Your task to perform on an android device: Search for a 24-inch cordless drill. Image 0: 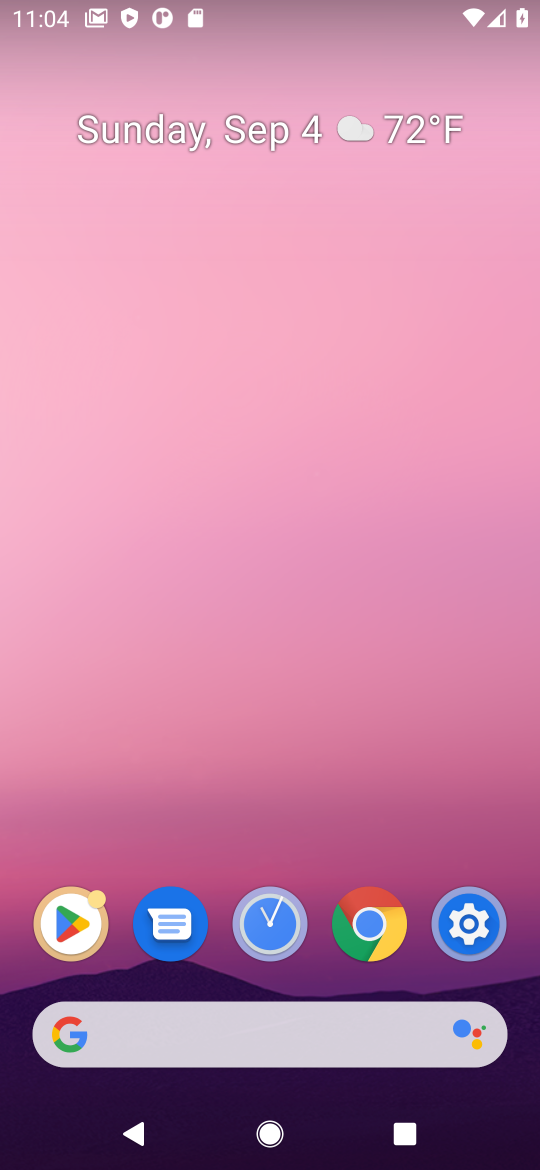
Step 0: press home button
Your task to perform on an android device: Search for a 24-inch cordless drill. Image 1: 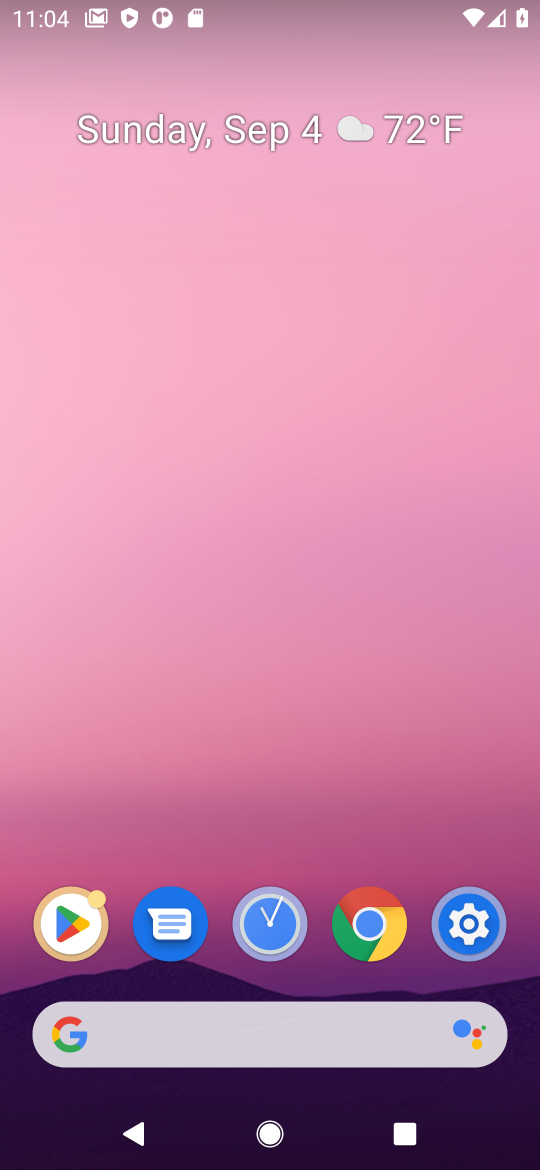
Step 1: drag from (312, 845) to (364, 4)
Your task to perform on an android device: Search for a 24-inch cordless drill. Image 2: 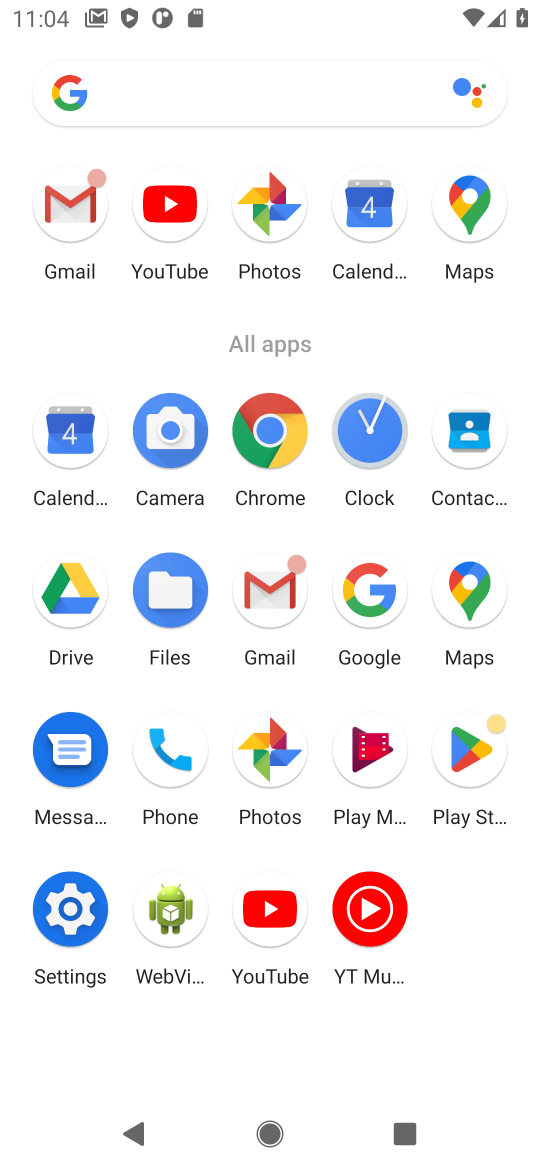
Step 2: click (267, 424)
Your task to perform on an android device: Search for a 24-inch cordless drill. Image 3: 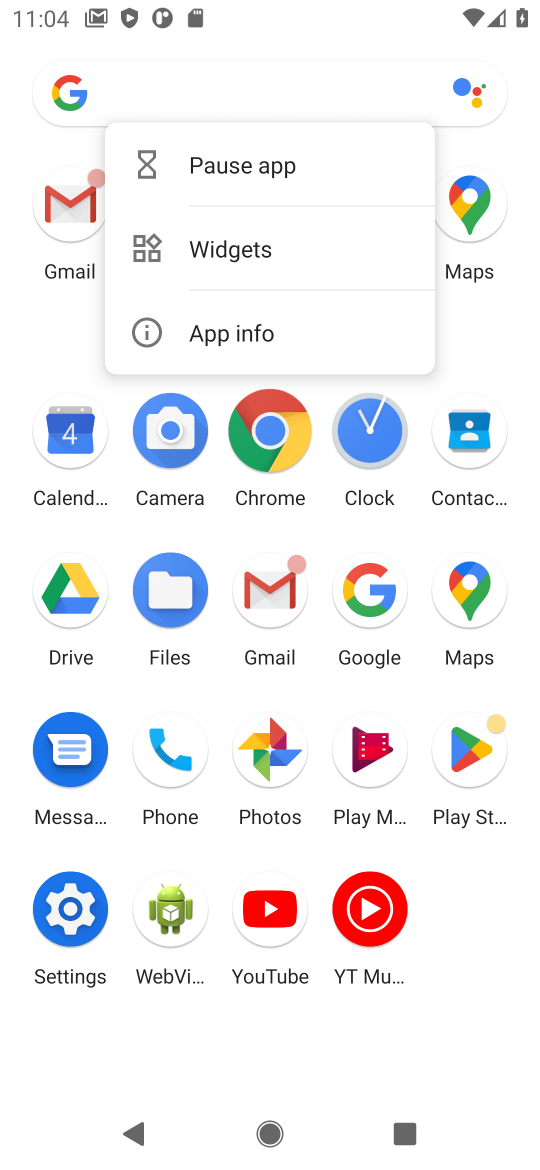
Step 3: click (267, 424)
Your task to perform on an android device: Search for a 24-inch cordless drill. Image 4: 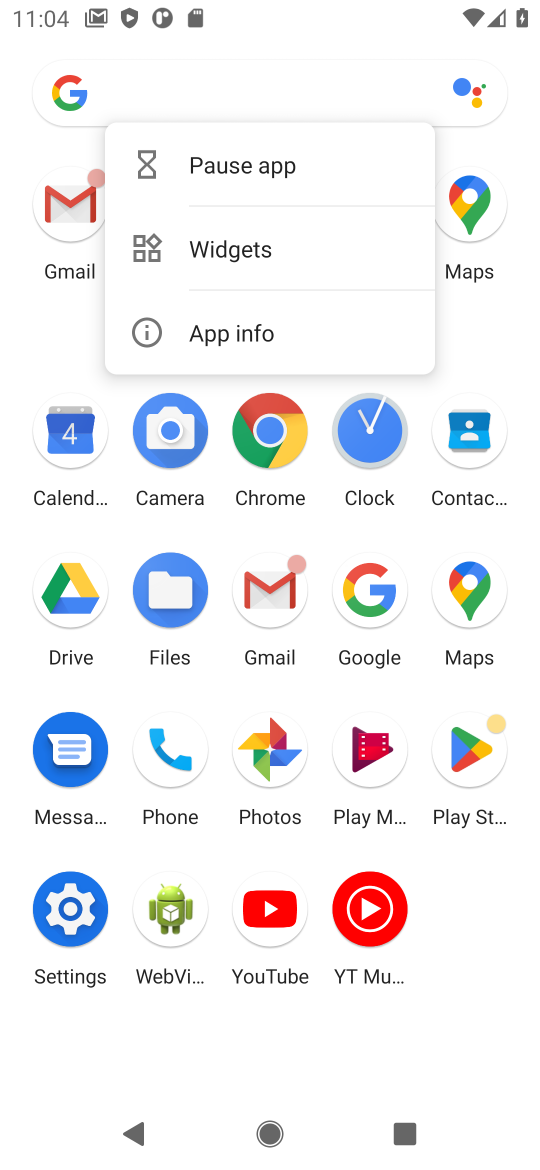
Step 4: click (267, 424)
Your task to perform on an android device: Search for a 24-inch cordless drill. Image 5: 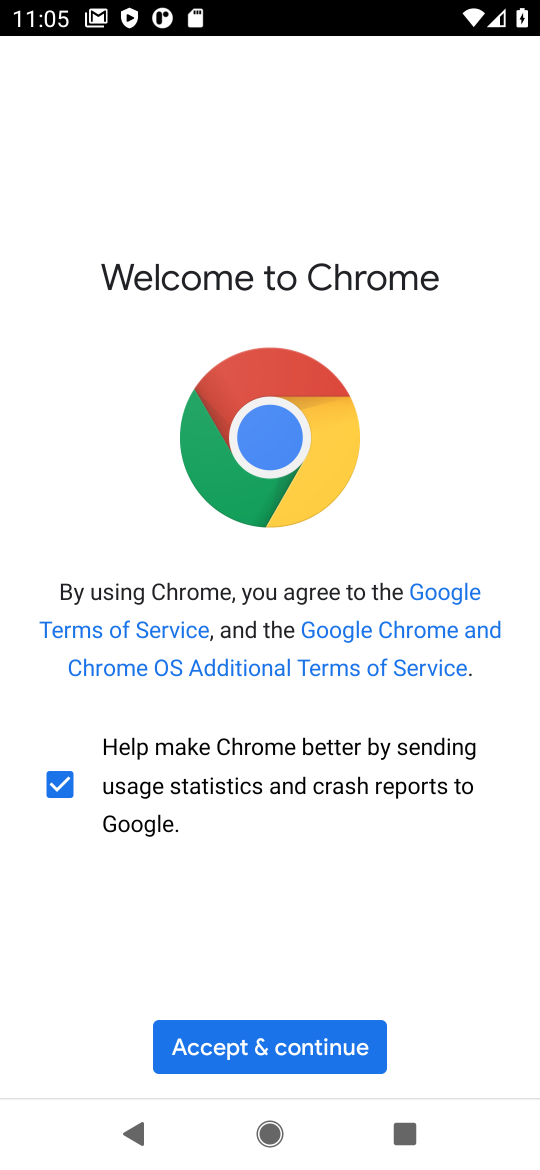
Step 5: click (257, 1049)
Your task to perform on an android device: Search for a 24-inch cordless drill. Image 6: 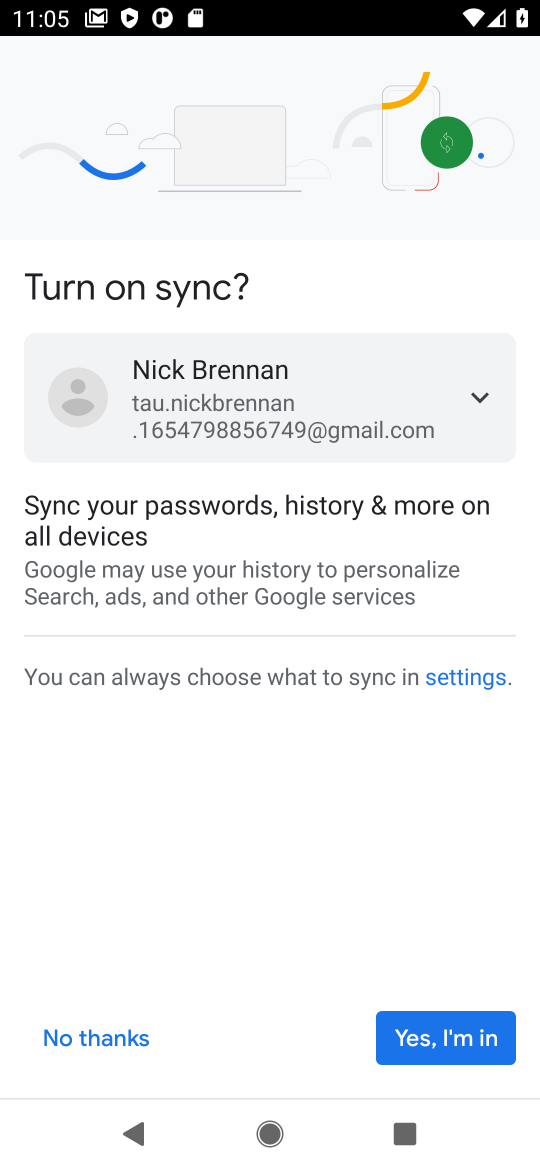
Step 6: click (456, 1045)
Your task to perform on an android device: Search for a 24-inch cordless drill. Image 7: 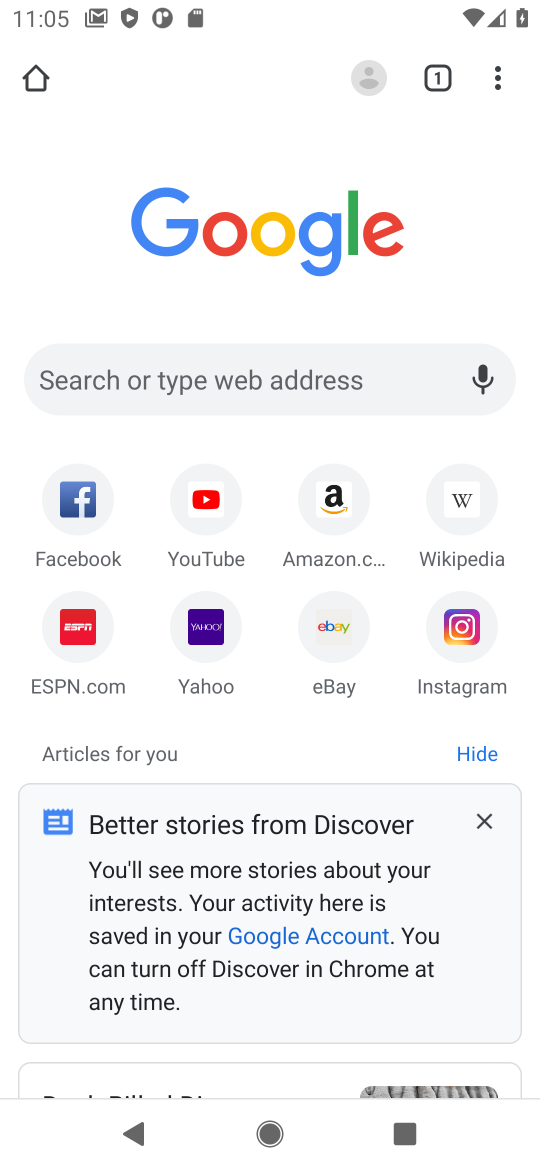
Step 7: click (174, 377)
Your task to perform on an android device: Search for a 24-inch cordless drill. Image 8: 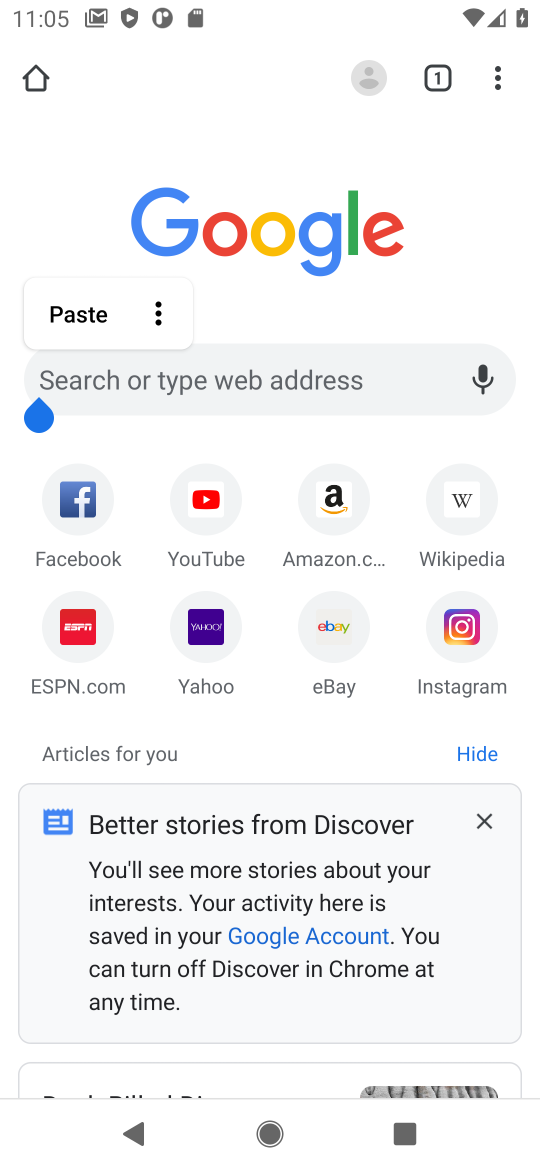
Step 8: click (141, 374)
Your task to perform on an android device: Search for a 24-inch cordless drill. Image 9: 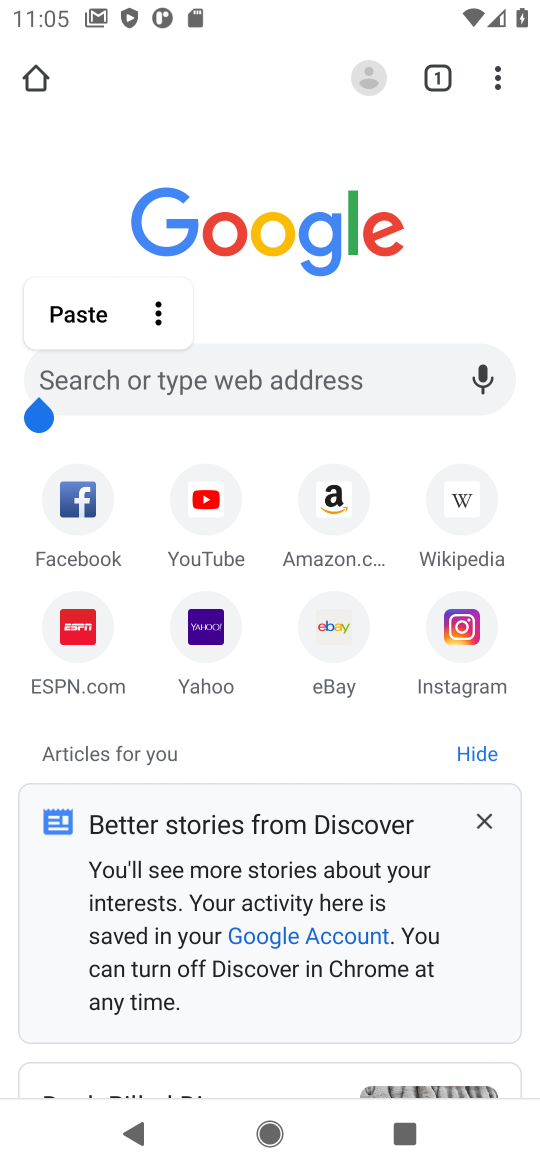
Step 9: click (89, 385)
Your task to perform on an android device: Search for a 24-inch cordless drill. Image 10: 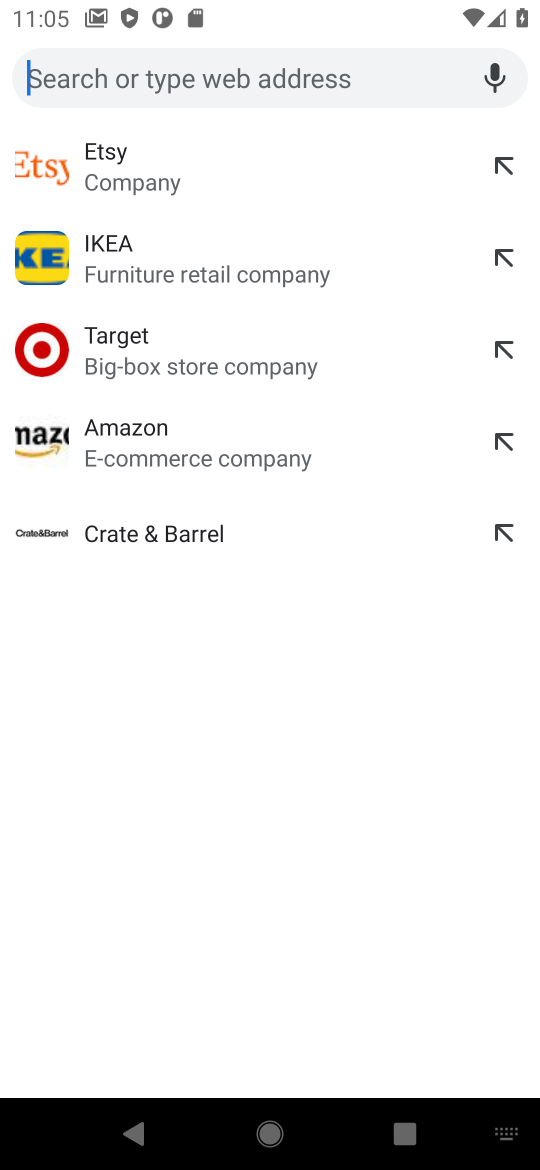
Step 10: type "24-inch cordless drill"
Your task to perform on an android device: Search for a 24-inch cordless drill. Image 11: 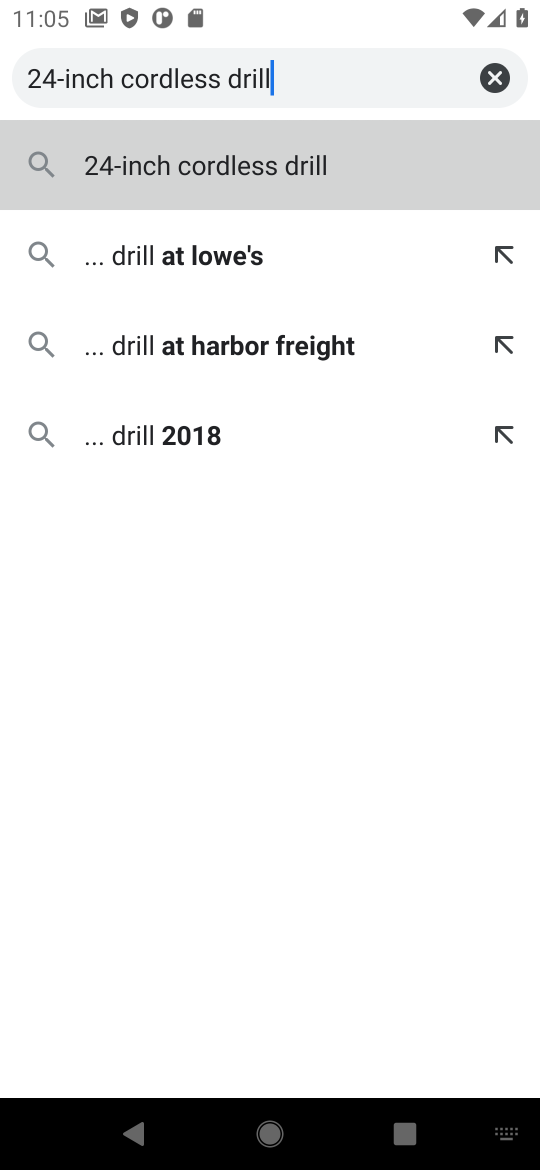
Step 11: click (175, 168)
Your task to perform on an android device: Search for a 24-inch cordless drill. Image 12: 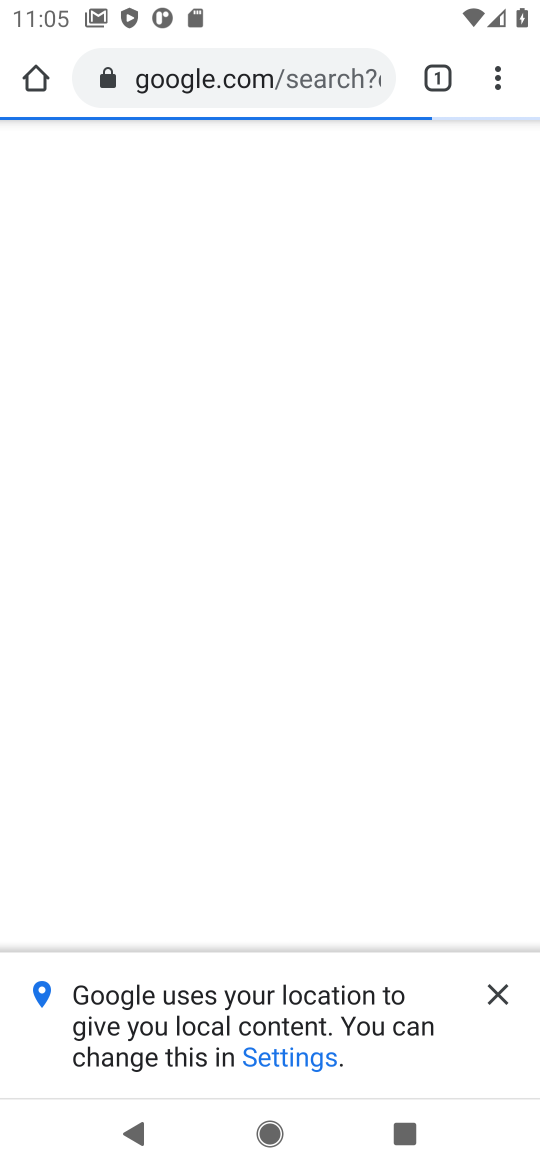
Step 12: drag from (0, 262) to (284, 433)
Your task to perform on an android device: Search for a 24-inch cordless drill. Image 13: 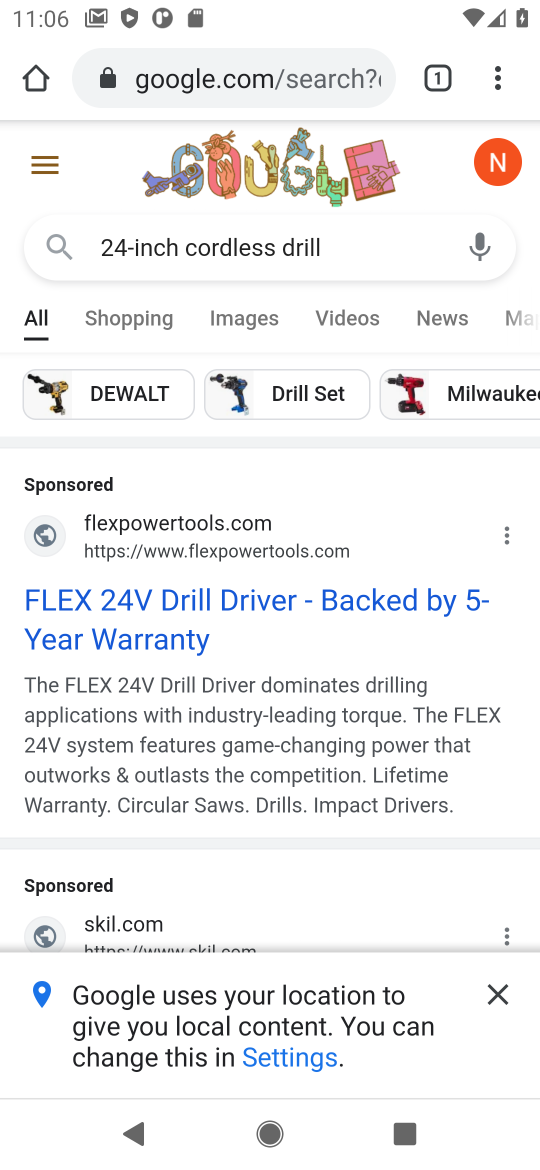
Step 13: drag from (252, 913) to (230, 175)
Your task to perform on an android device: Search for a 24-inch cordless drill. Image 14: 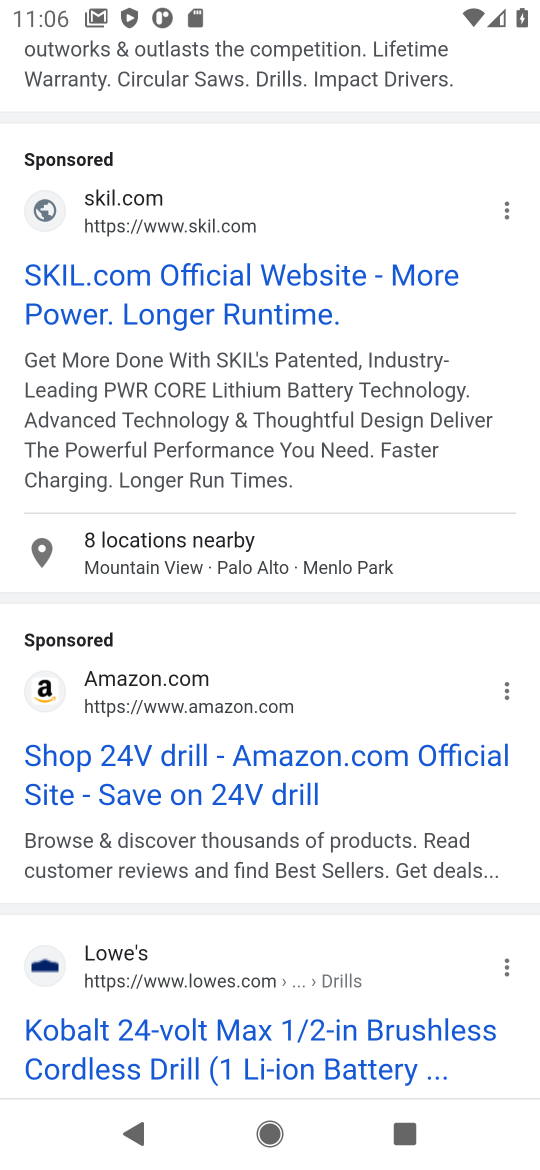
Step 14: drag from (305, 914) to (313, 146)
Your task to perform on an android device: Search for a 24-inch cordless drill. Image 15: 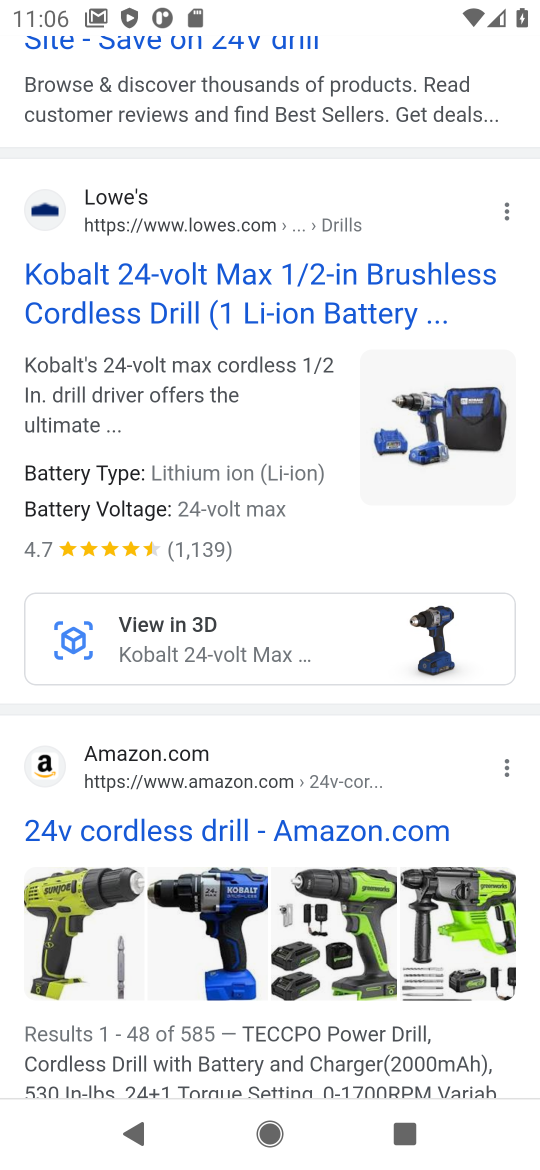
Step 15: click (159, 832)
Your task to perform on an android device: Search for a 24-inch cordless drill. Image 16: 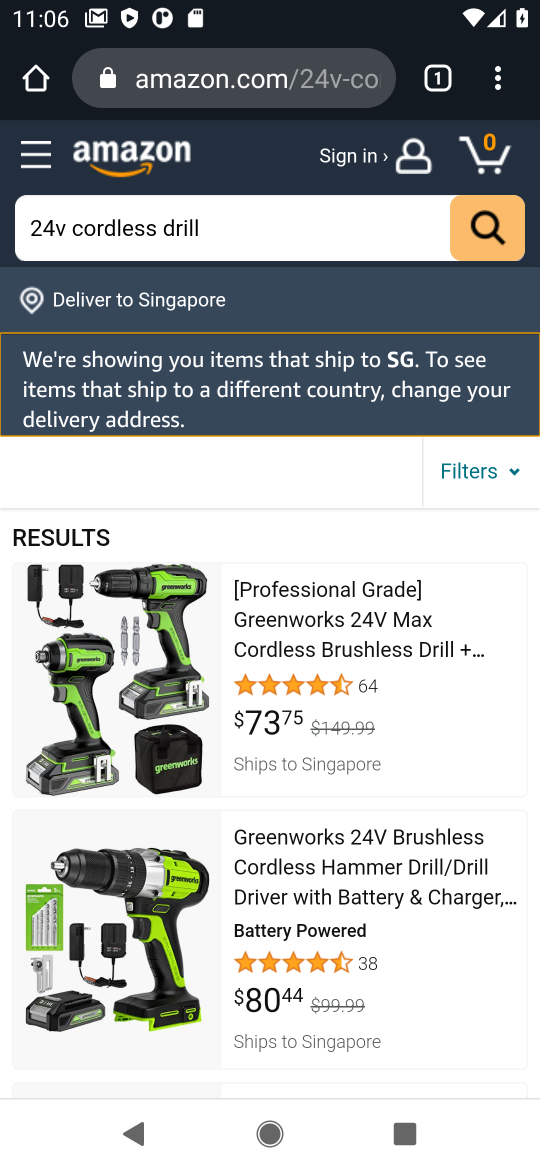
Step 16: drag from (209, 1045) to (175, 531)
Your task to perform on an android device: Search for a 24-inch cordless drill. Image 17: 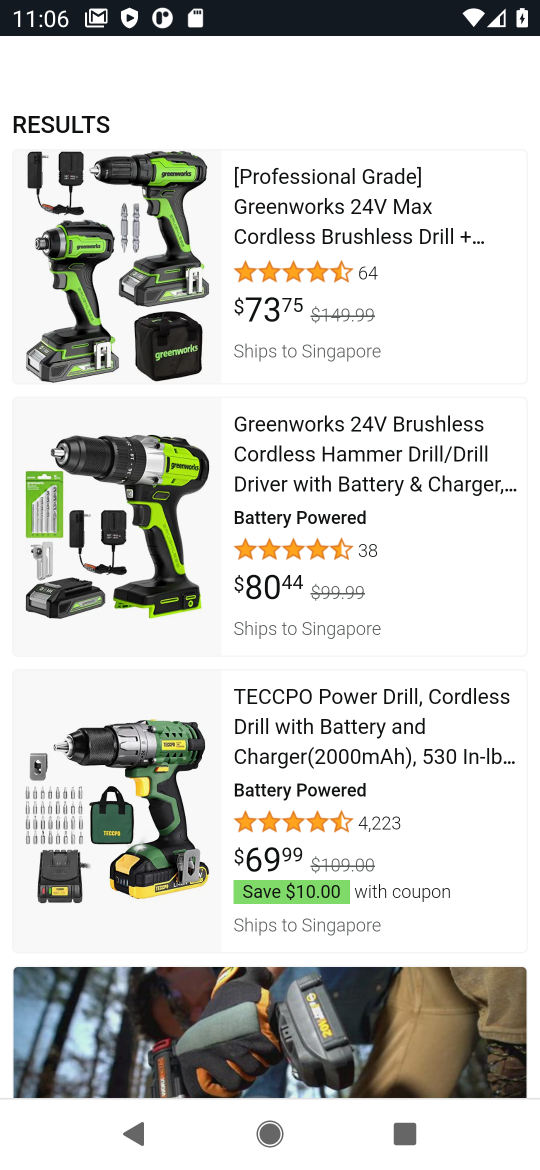
Step 17: drag from (207, 932) to (145, 199)
Your task to perform on an android device: Search for a 24-inch cordless drill. Image 18: 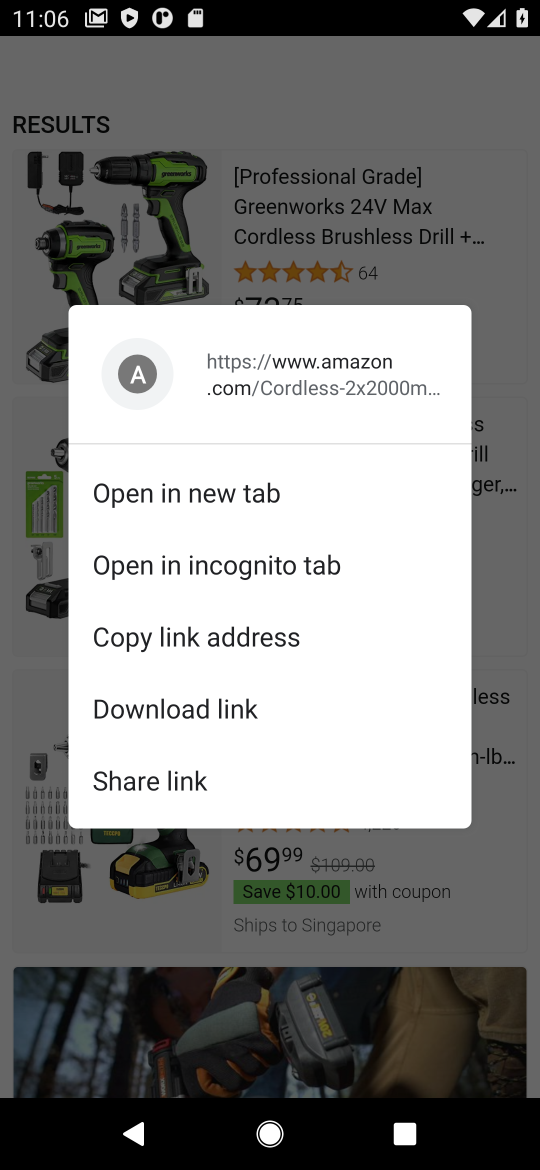
Step 18: click (329, 948)
Your task to perform on an android device: Search for a 24-inch cordless drill. Image 19: 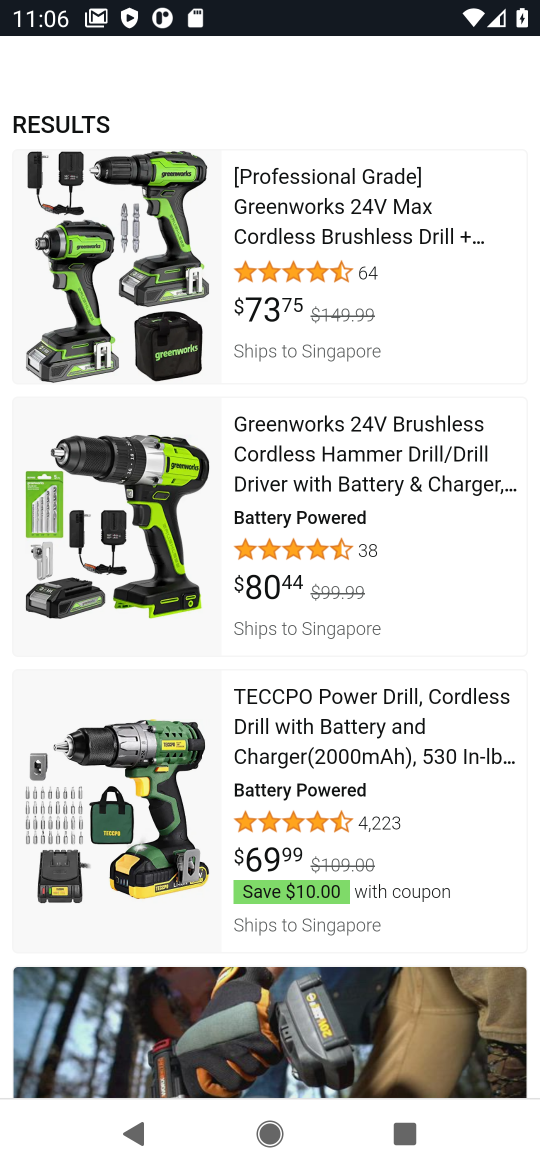
Step 19: drag from (248, 960) to (254, 197)
Your task to perform on an android device: Search for a 24-inch cordless drill. Image 20: 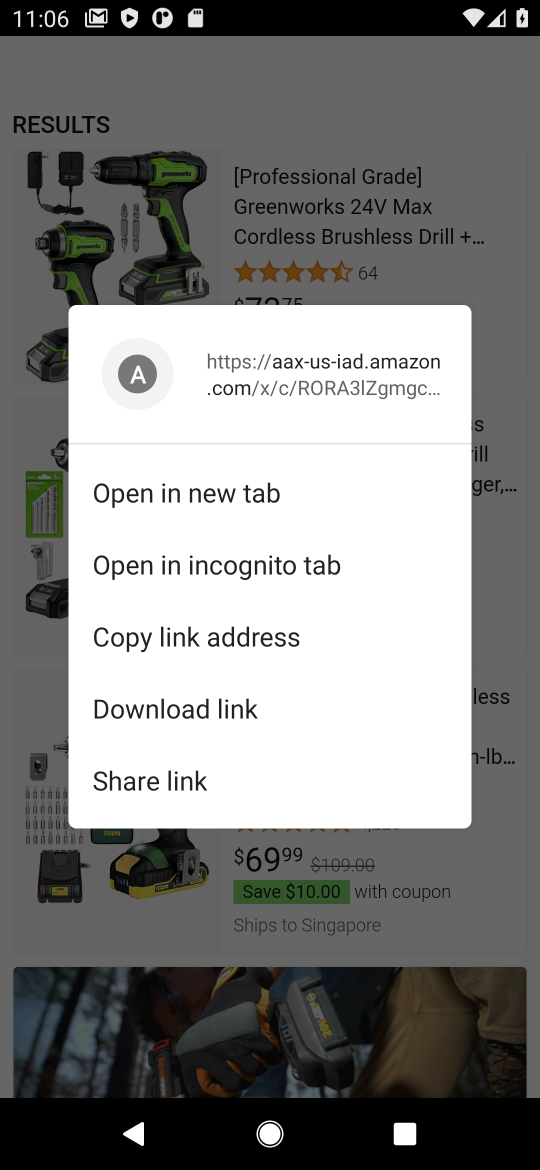
Step 20: click (372, 950)
Your task to perform on an android device: Search for a 24-inch cordless drill. Image 21: 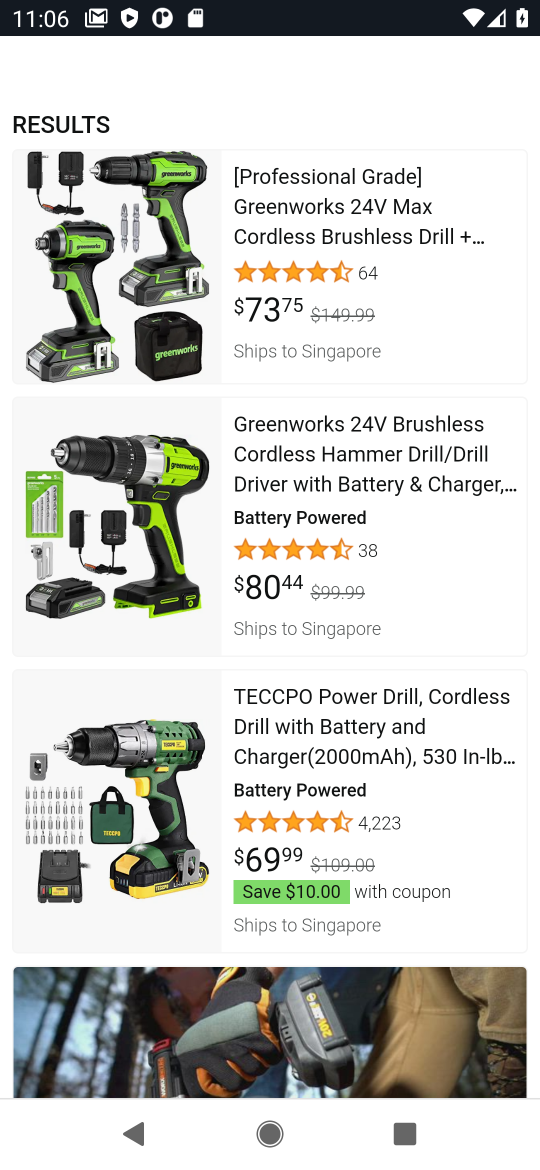
Step 21: drag from (423, 838) to (438, 86)
Your task to perform on an android device: Search for a 24-inch cordless drill. Image 22: 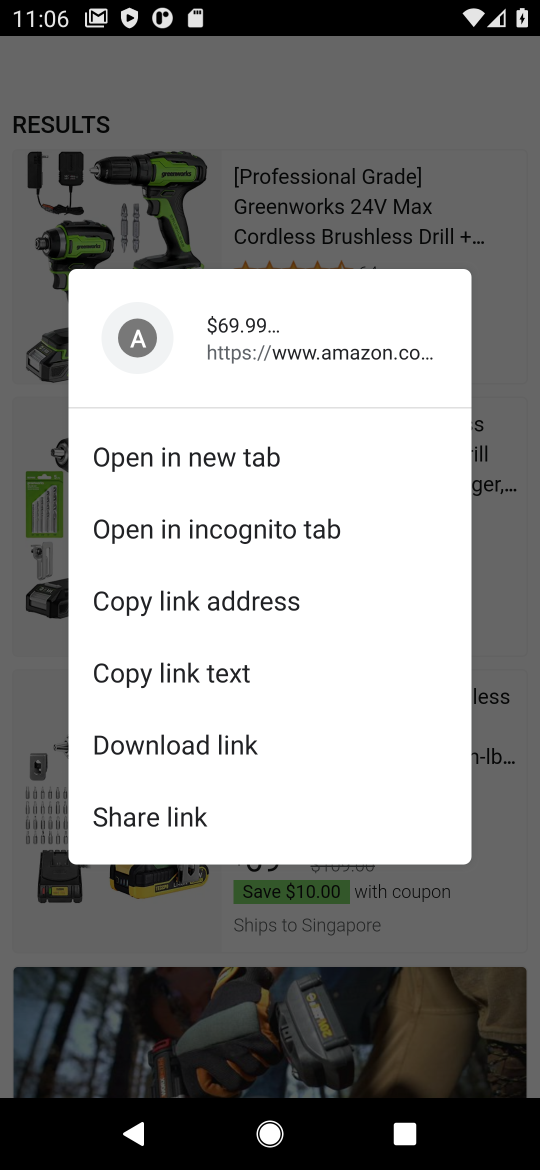
Step 22: click (126, 262)
Your task to perform on an android device: Search for a 24-inch cordless drill. Image 23: 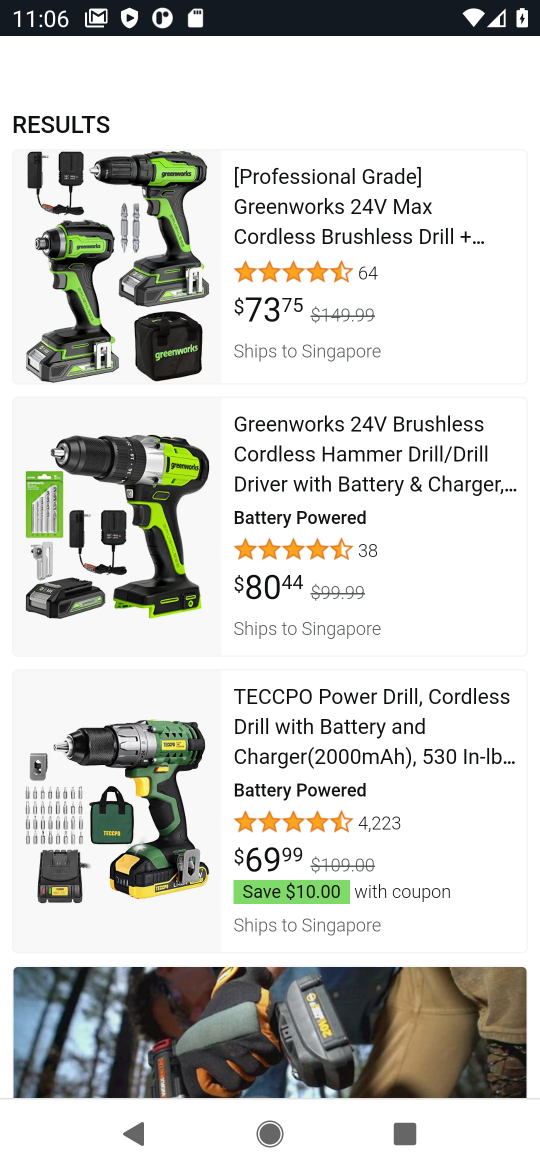
Step 23: task complete